Your task to perform on an android device: set the stopwatch Image 0: 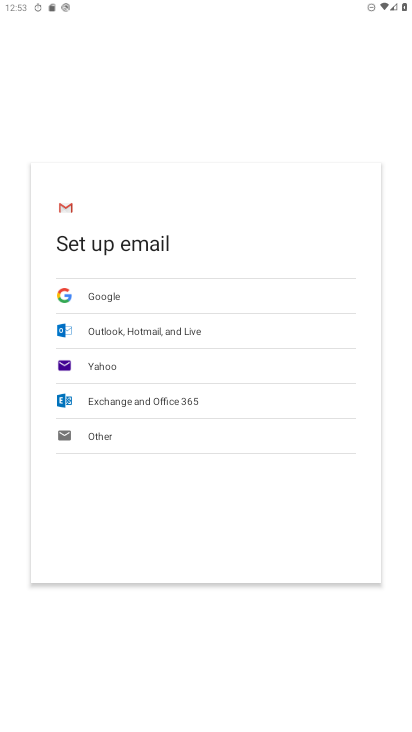
Step 0: press home button
Your task to perform on an android device: set the stopwatch Image 1: 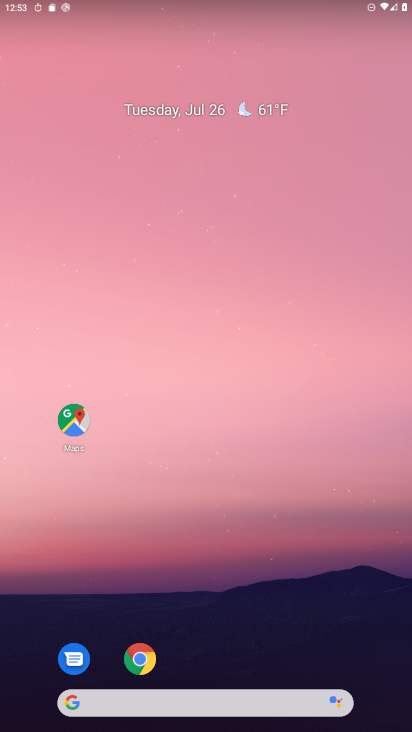
Step 1: drag from (36, 685) to (165, 289)
Your task to perform on an android device: set the stopwatch Image 2: 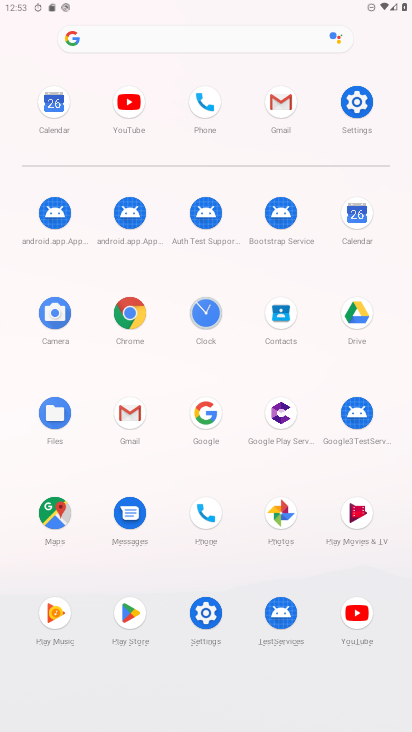
Step 2: click (216, 308)
Your task to perform on an android device: set the stopwatch Image 3: 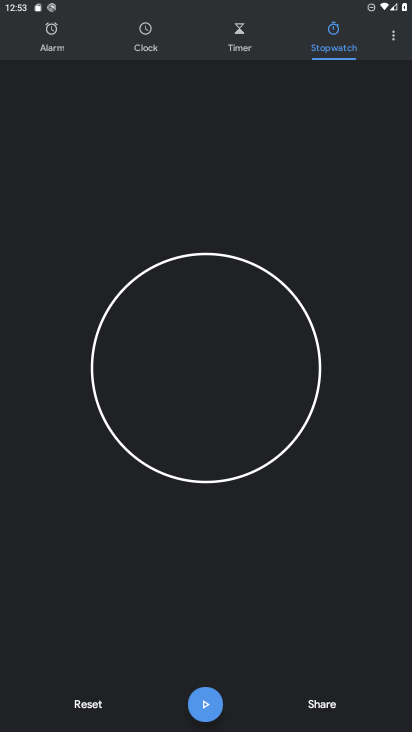
Step 3: click (183, 381)
Your task to perform on an android device: set the stopwatch Image 4: 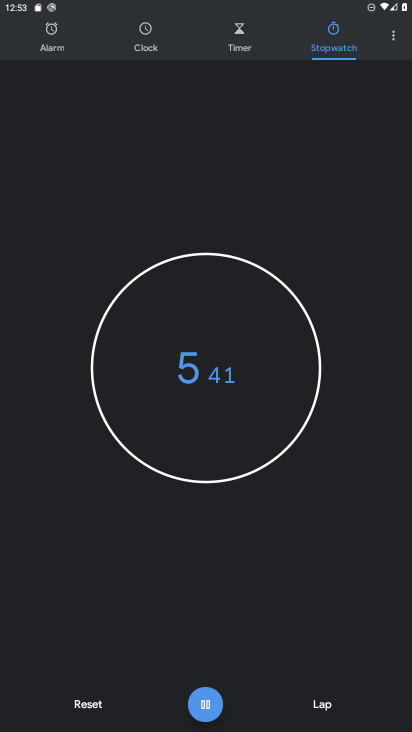
Step 4: click (207, 388)
Your task to perform on an android device: set the stopwatch Image 5: 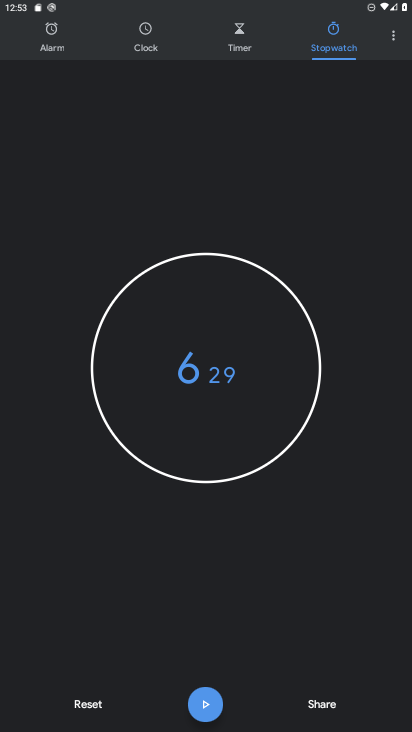
Step 5: task complete